Your task to perform on an android device: Show me recent news Image 0: 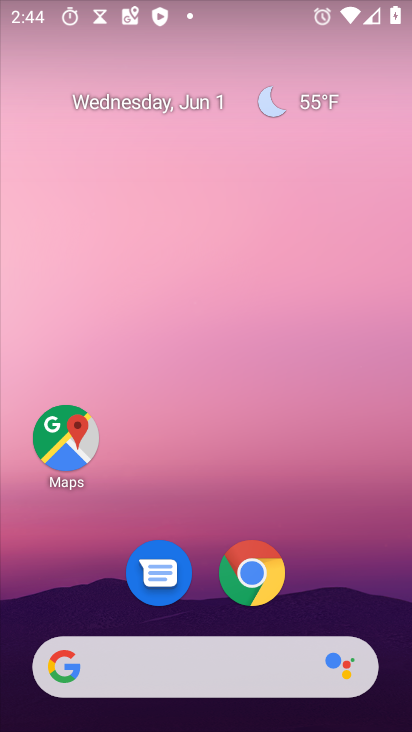
Step 0: drag from (394, 524) to (324, 9)
Your task to perform on an android device: Show me recent news Image 1: 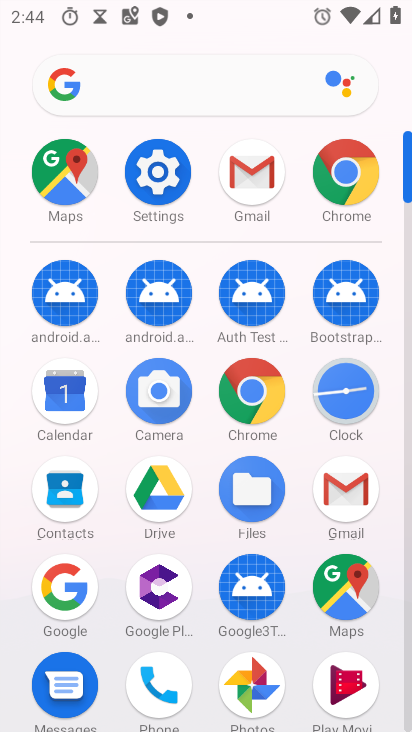
Step 1: click (341, 188)
Your task to perform on an android device: Show me recent news Image 2: 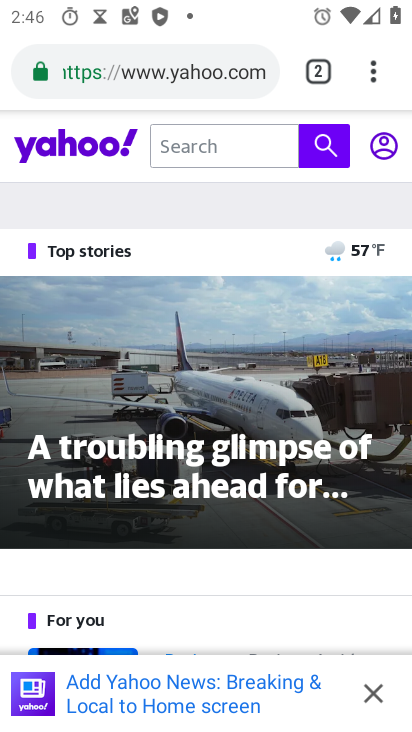
Step 2: task complete